Your task to perform on an android device: toggle location history Image 0: 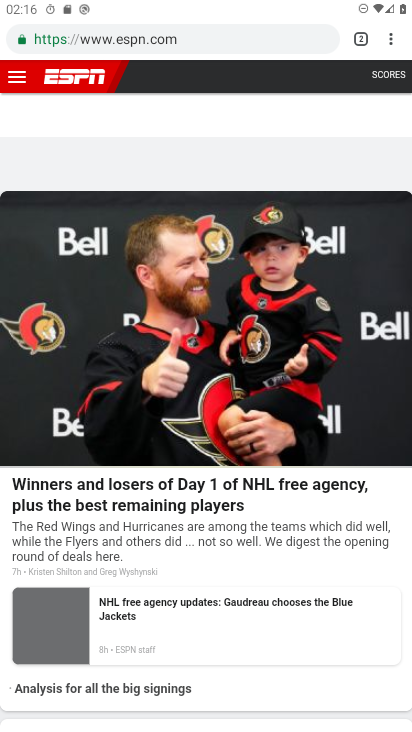
Step 0: press home button
Your task to perform on an android device: toggle location history Image 1: 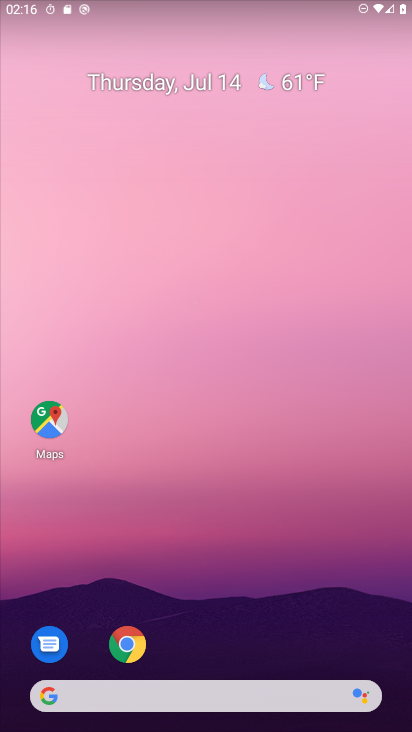
Step 1: drag from (270, 411) to (297, 99)
Your task to perform on an android device: toggle location history Image 2: 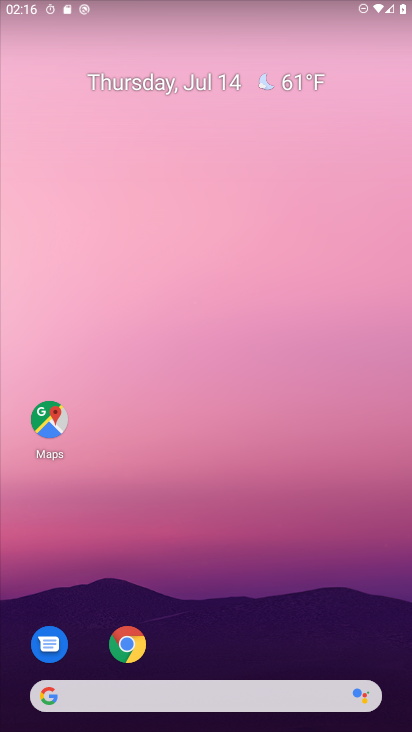
Step 2: drag from (260, 570) to (228, 25)
Your task to perform on an android device: toggle location history Image 3: 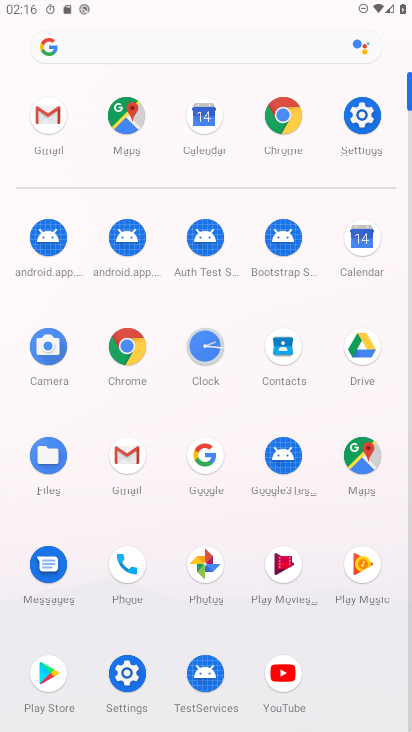
Step 3: click (364, 112)
Your task to perform on an android device: toggle location history Image 4: 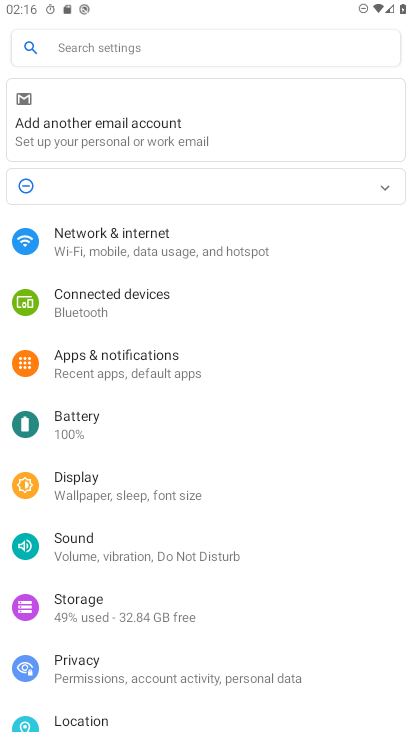
Step 4: drag from (173, 632) to (216, 337)
Your task to perform on an android device: toggle location history Image 5: 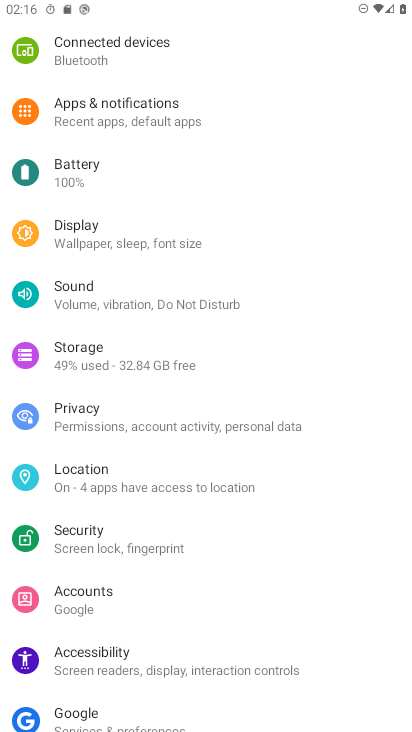
Step 5: click (111, 486)
Your task to perform on an android device: toggle location history Image 6: 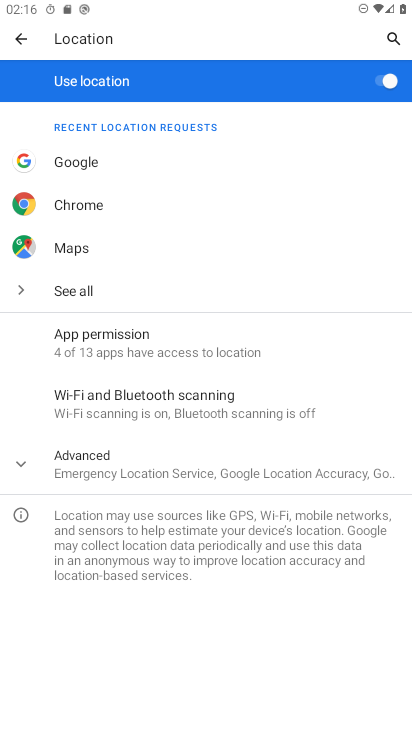
Step 6: click (113, 480)
Your task to perform on an android device: toggle location history Image 7: 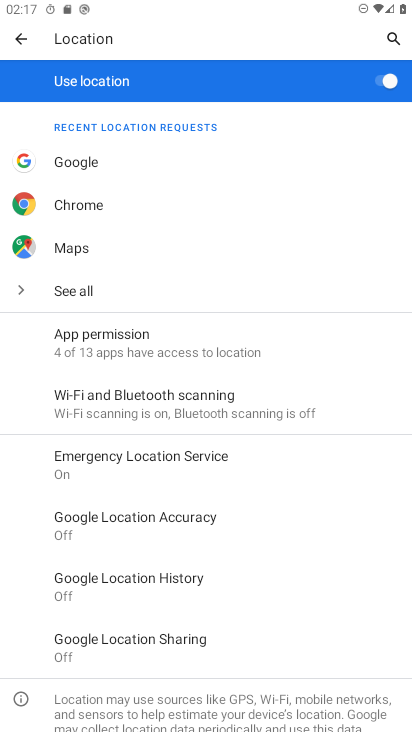
Step 7: click (116, 575)
Your task to perform on an android device: toggle location history Image 8: 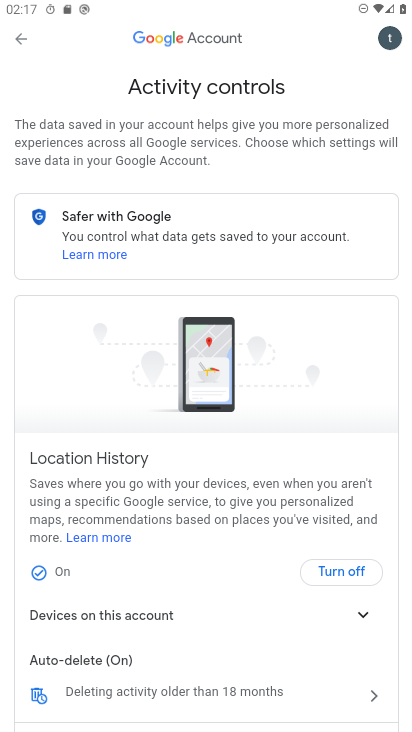
Step 8: click (341, 571)
Your task to perform on an android device: toggle location history Image 9: 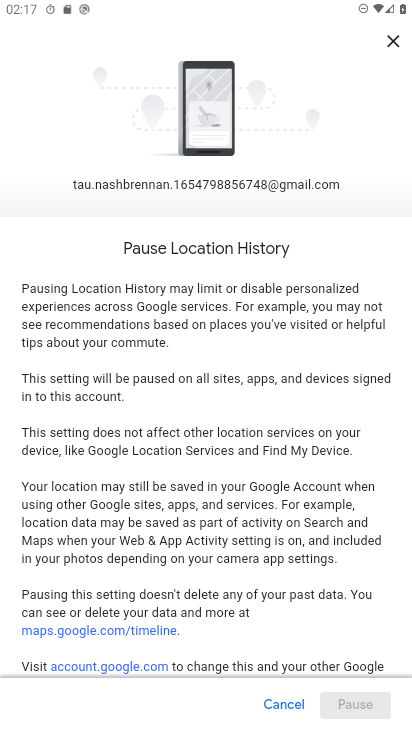
Step 9: drag from (300, 597) to (301, 240)
Your task to perform on an android device: toggle location history Image 10: 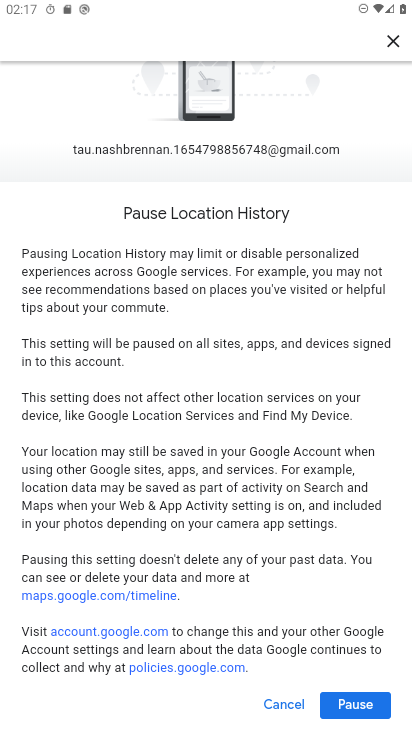
Step 10: click (370, 707)
Your task to perform on an android device: toggle location history Image 11: 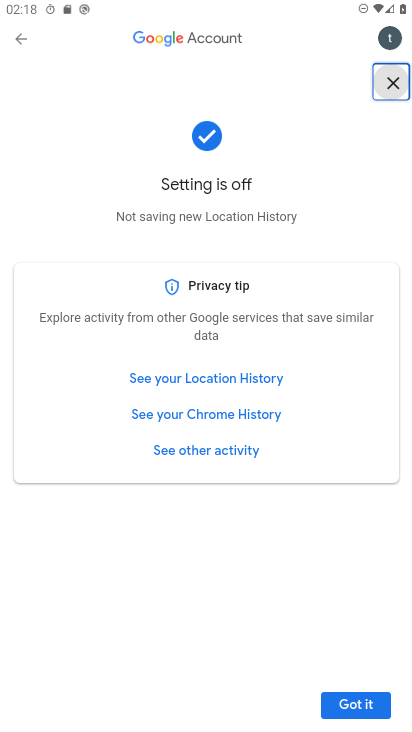
Step 11: task complete